Your task to perform on an android device: clear all cookies in the chrome app Image 0: 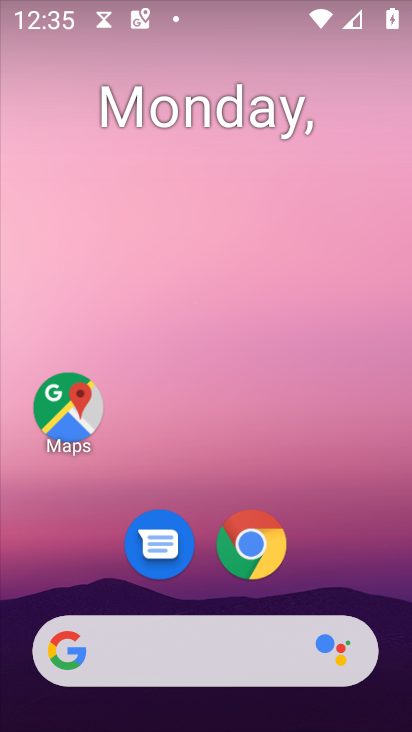
Step 0: drag from (318, 582) to (296, 206)
Your task to perform on an android device: clear all cookies in the chrome app Image 1: 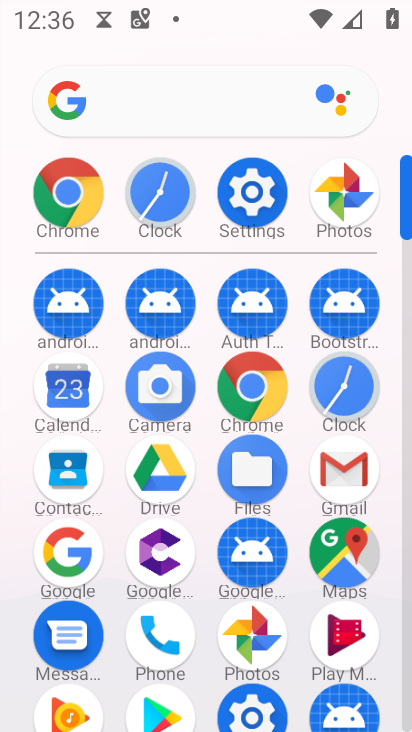
Step 1: click (241, 366)
Your task to perform on an android device: clear all cookies in the chrome app Image 2: 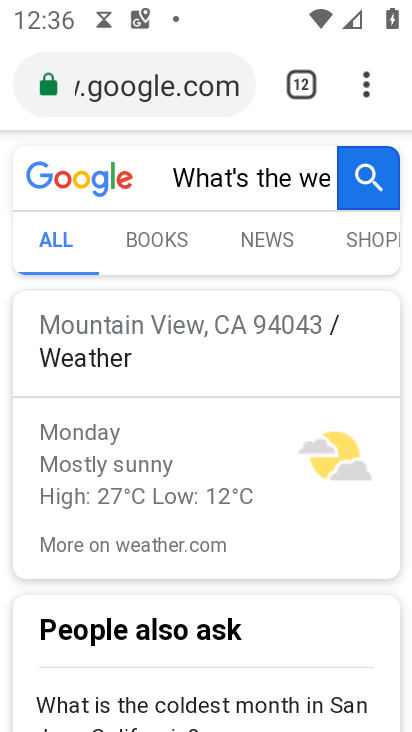
Step 2: click (365, 77)
Your task to perform on an android device: clear all cookies in the chrome app Image 3: 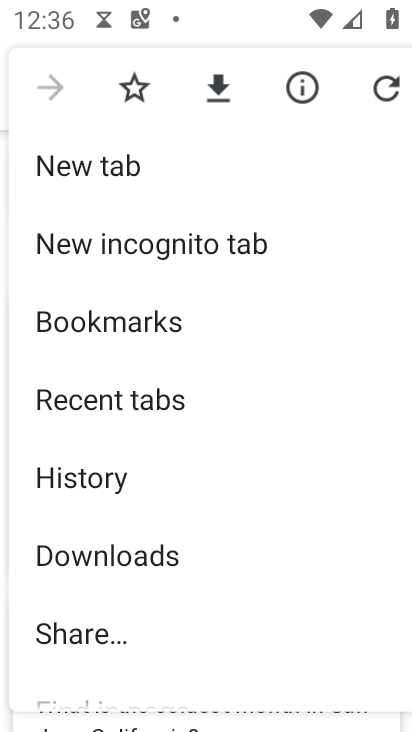
Step 3: click (101, 159)
Your task to perform on an android device: clear all cookies in the chrome app Image 4: 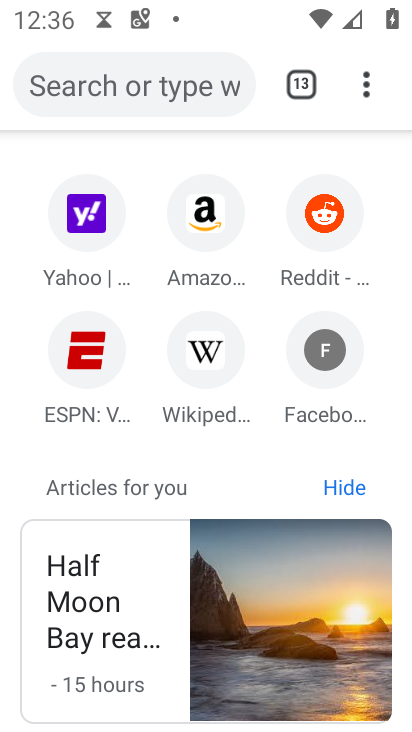
Step 4: click (356, 90)
Your task to perform on an android device: clear all cookies in the chrome app Image 5: 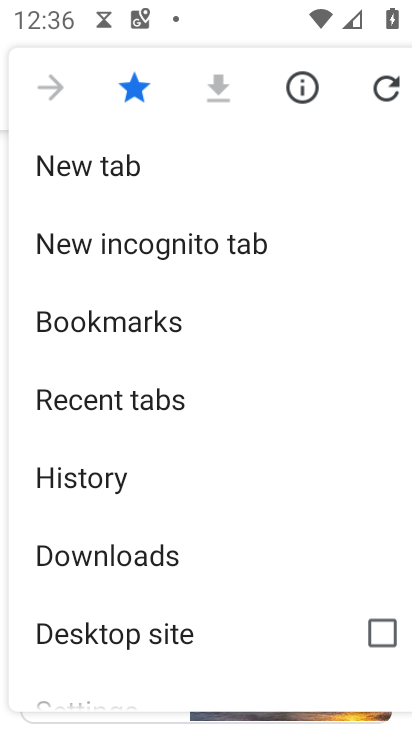
Step 5: drag from (181, 615) to (178, 282)
Your task to perform on an android device: clear all cookies in the chrome app Image 6: 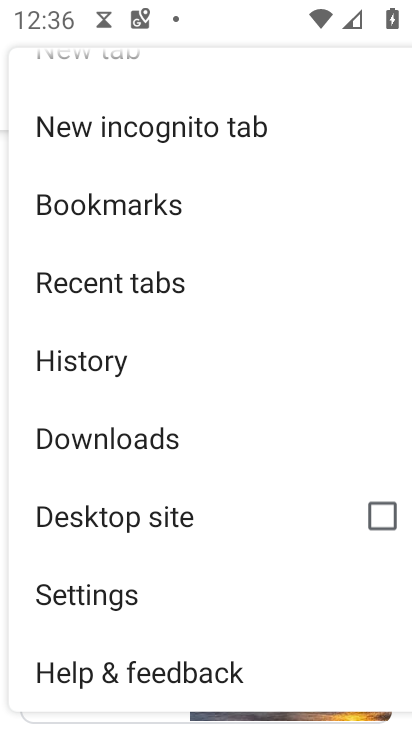
Step 6: click (91, 593)
Your task to perform on an android device: clear all cookies in the chrome app Image 7: 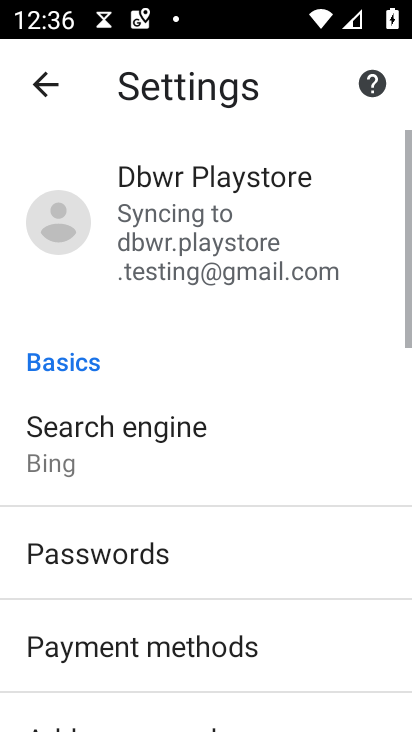
Step 7: drag from (138, 630) to (196, 315)
Your task to perform on an android device: clear all cookies in the chrome app Image 8: 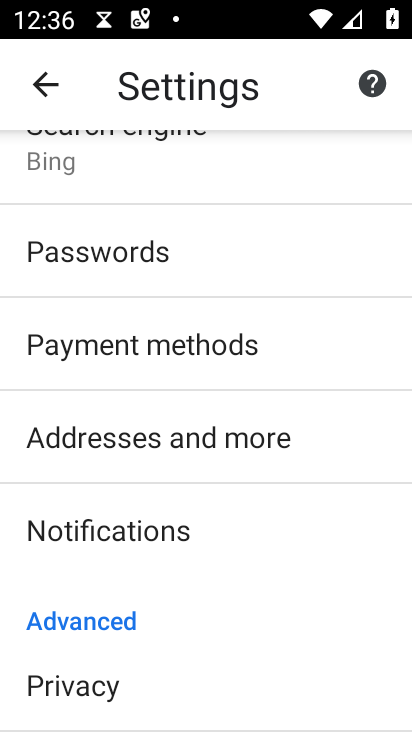
Step 8: click (142, 681)
Your task to perform on an android device: clear all cookies in the chrome app Image 9: 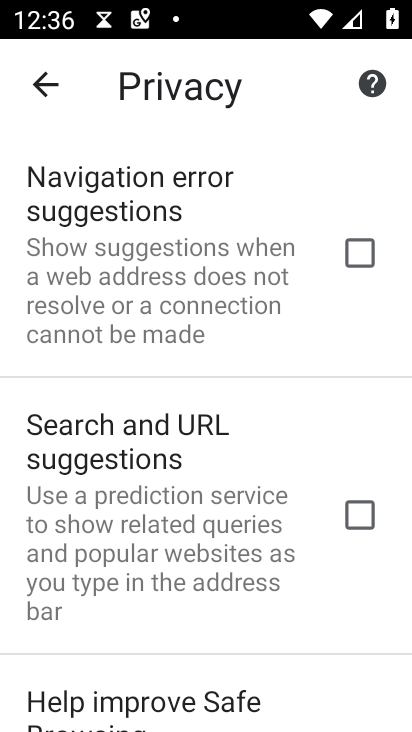
Step 9: drag from (217, 694) to (228, 214)
Your task to perform on an android device: clear all cookies in the chrome app Image 10: 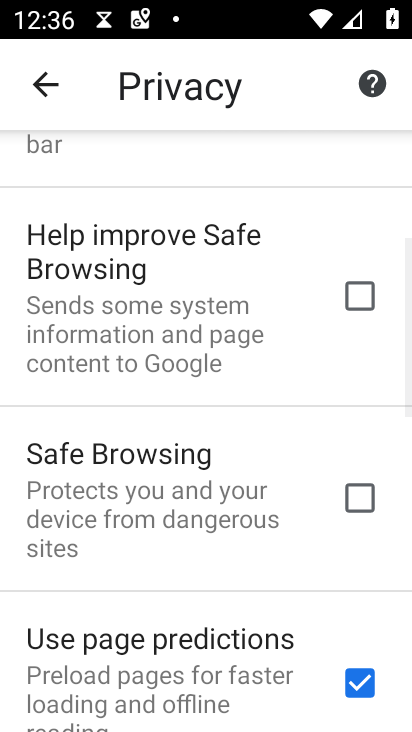
Step 10: drag from (152, 682) to (149, 7)
Your task to perform on an android device: clear all cookies in the chrome app Image 11: 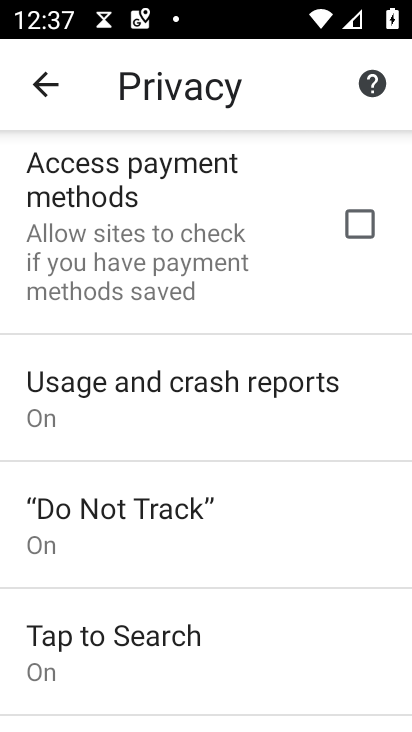
Step 11: drag from (231, 624) to (241, 199)
Your task to perform on an android device: clear all cookies in the chrome app Image 12: 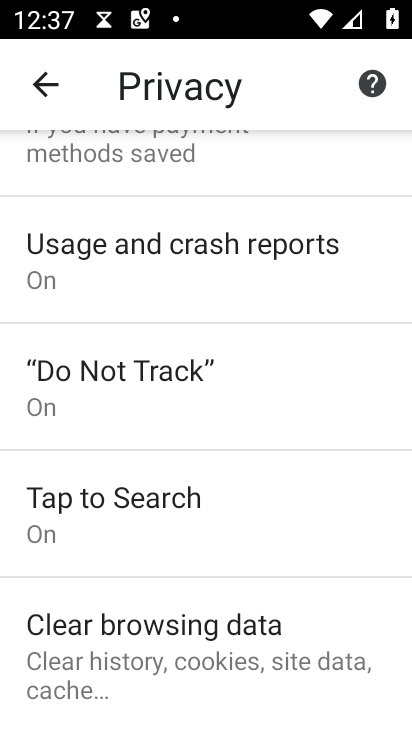
Step 12: click (214, 633)
Your task to perform on an android device: clear all cookies in the chrome app Image 13: 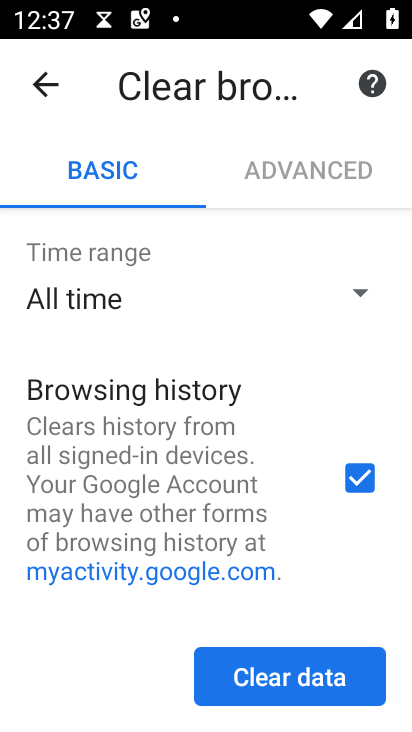
Step 13: click (264, 688)
Your task to perform on an android device: clear all cookies in the chrome app Image 14: 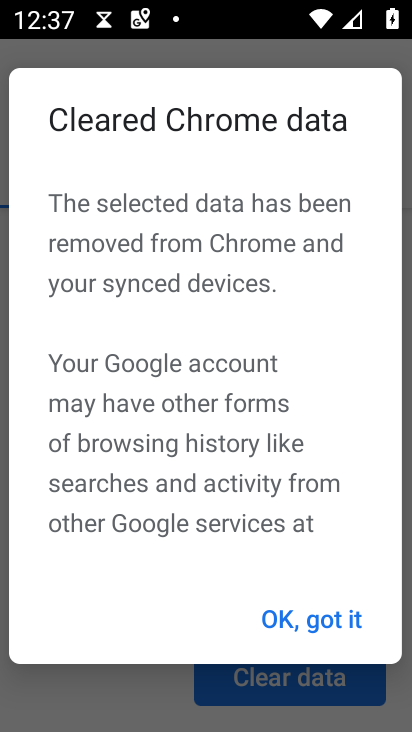
Step 14: click (269, 617)
Your task to perform on an android device: clear all cookies in the chrome app Image 15: 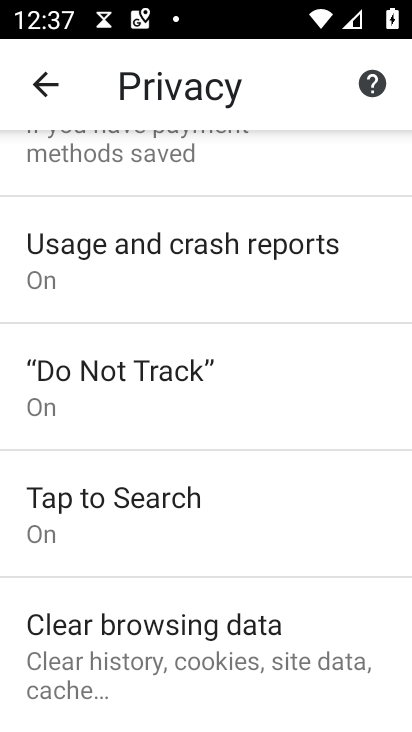
Step 15: task complete